Your task to perform on an android device: change the upload size in google photos Image 0: 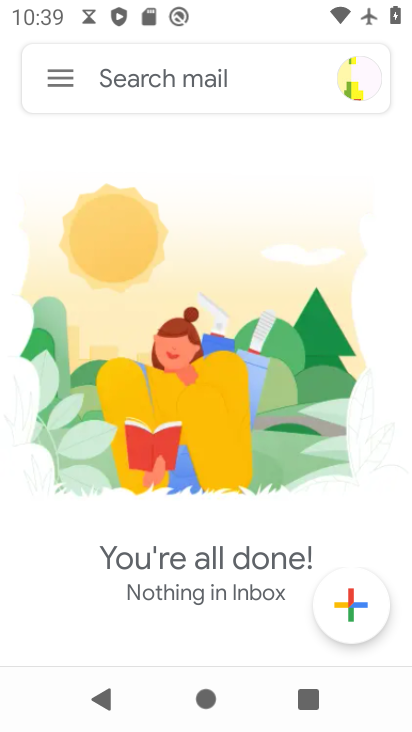
Step 0: press home button
Your task to perform on an android device: change the upload size in google photos Image 1: 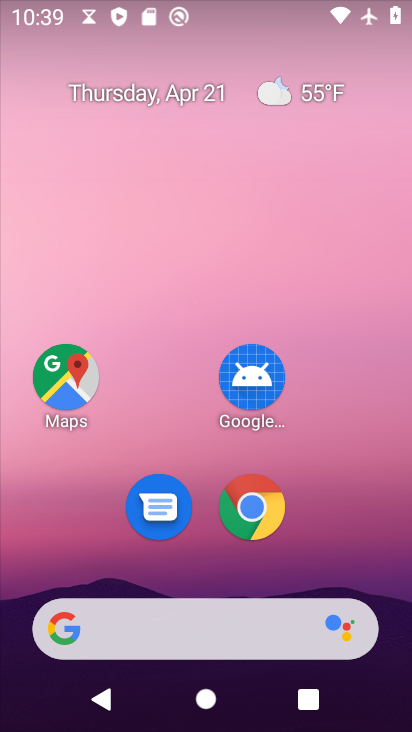
Step 1: drag from (287, 577) to (329, 138)
Your task to perform on an android device: change the upload size in google photos Image 2: 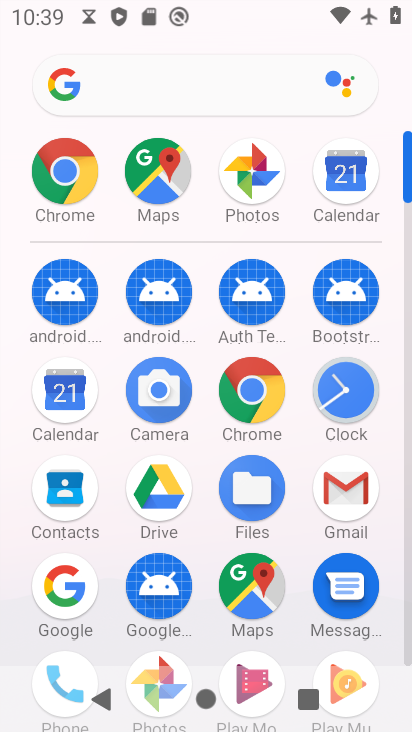
Step 2: drag from (202, 555) to (217, 277)
Your task to perform on an android device: change the upload size in google photos Image 3: 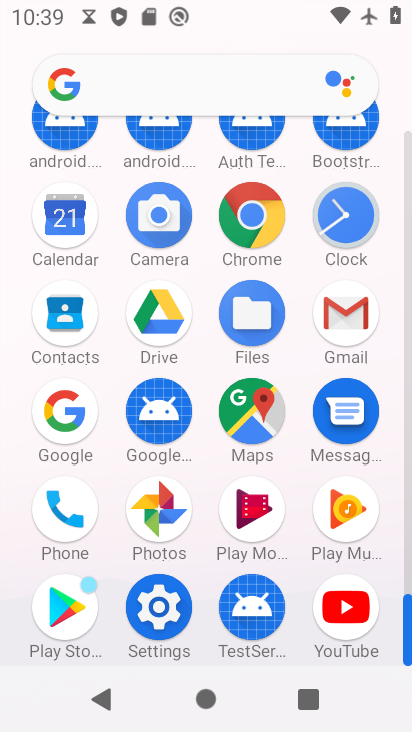
Step 3: click (170, 507)
Your task to perform on an android device: change the upload size in google photos Image 4: 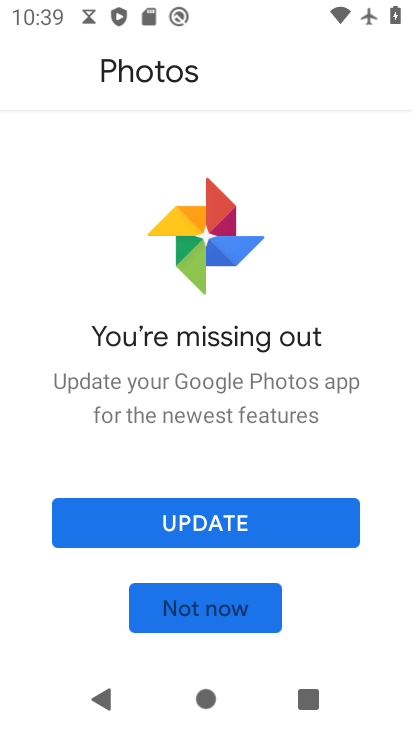
Step 4: click (190, 603)
Your task to perform on an android device: change the upload size in google photos Image 5: 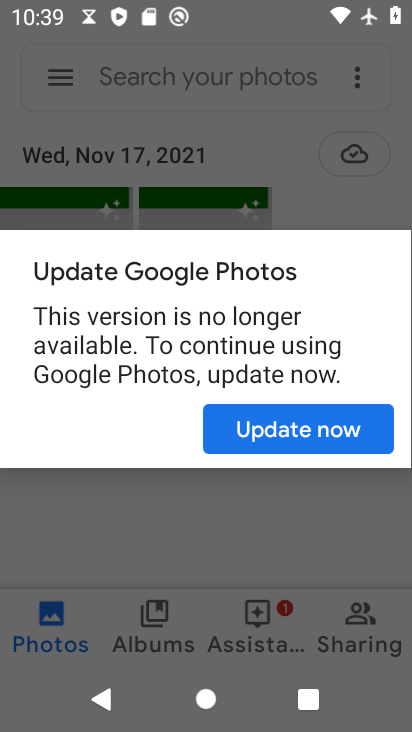
Step 5: click (303, 420)
Your task to perform on an android device: change the upload size in google photos Image 6: 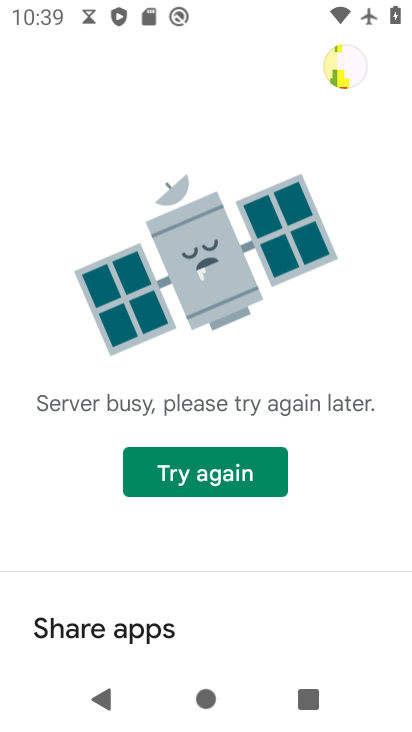
Step 6: press back button
Your task to perform on an android device: change the upload size in google photos Image 7: 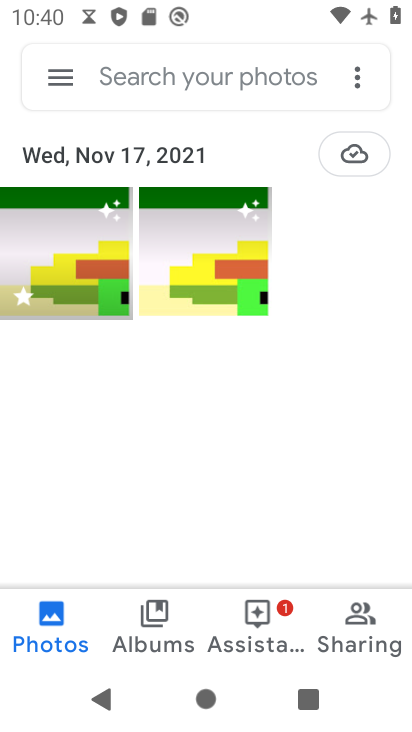
Step 7: click (52, 78)
Your task to perform on an android device: change the upload size in google photos Image 8: 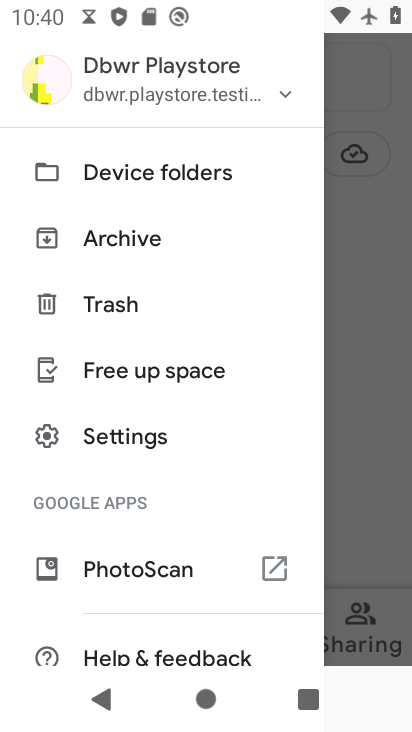
Step 8: click (143, 432)
Your task to perform on an android device: change the upload size in google photos Image 9: 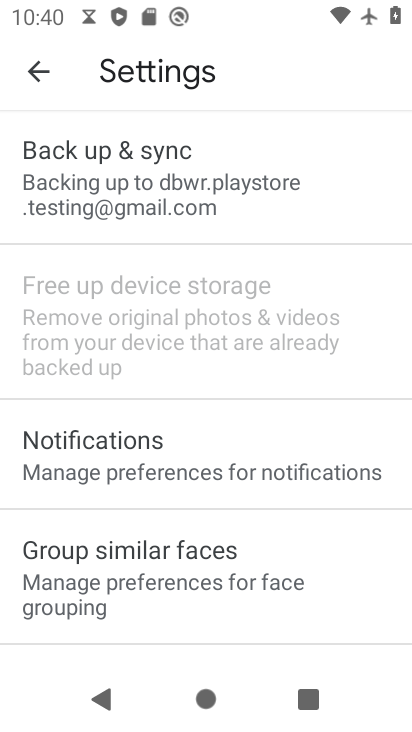
Step 9: click (204, 183)
Your task to perform on an android device: change the upload size in google photos Image 10: 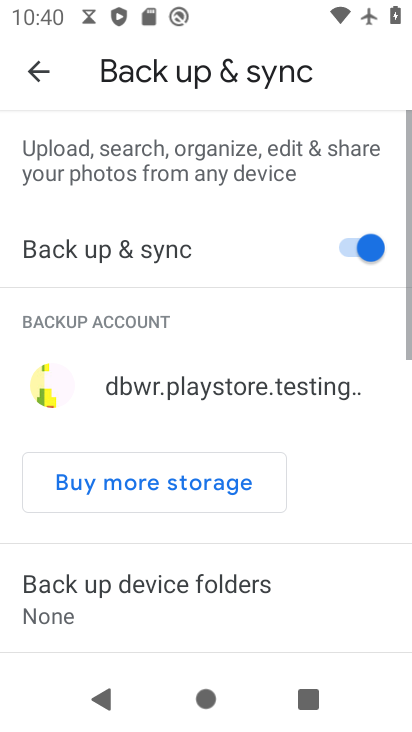
Step 10: drag from (262, 568) to (263, 180)
Your task to perform on an android device: change the upload size in google photos Image 11: 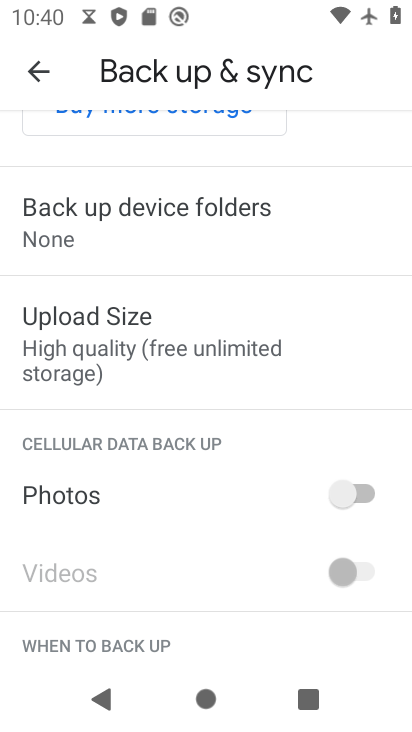
Step 11: press home button
Your task to perform on an android device: change the upload size in google photos Image 12: 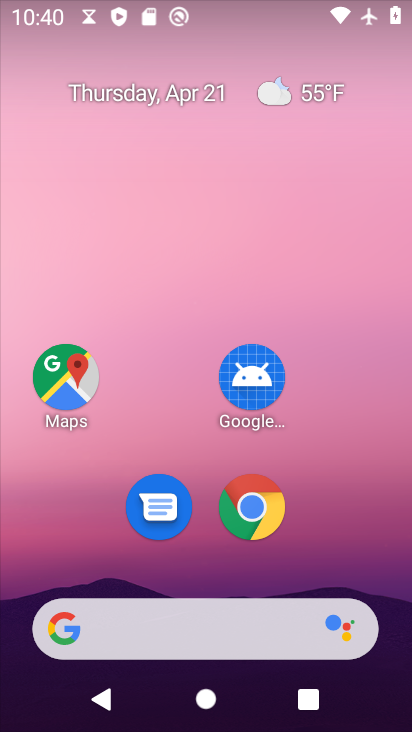
Step 12: drag from (318, 257) to (342, 74)
Your task to perform on an android device: change the upload size in google photos Image 13: 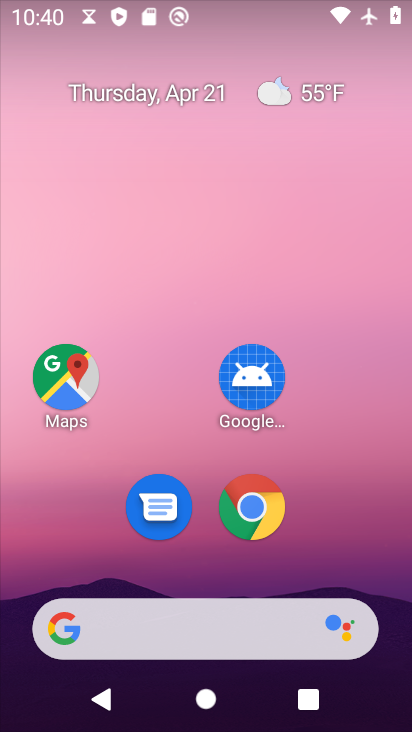
Step 13: drag from (299, 546) to (335, 150)
Your task to perform on an android device: change the upload size in google photos Image 14: 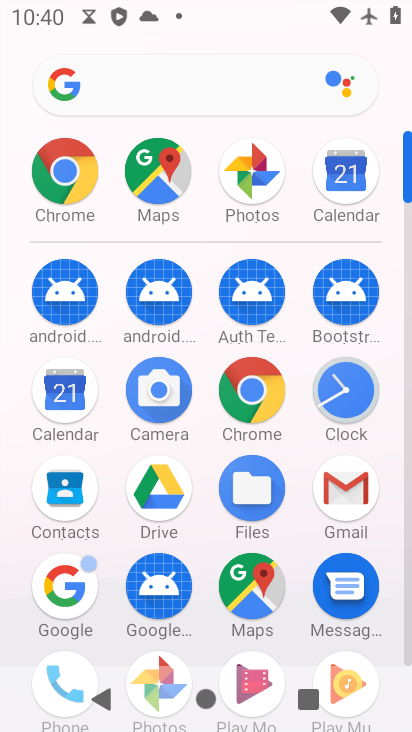
Step 14: drag from (195, 615) to (234, 358)
Your task to perform on an android device: change the upload size in google photos Image 15: 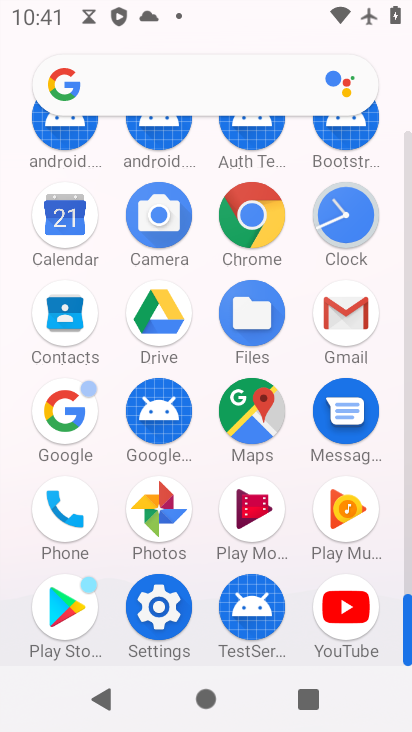
Step 15: click (161, 617)
Your task to perform on an android device: change the upload size in google photos Image 16: 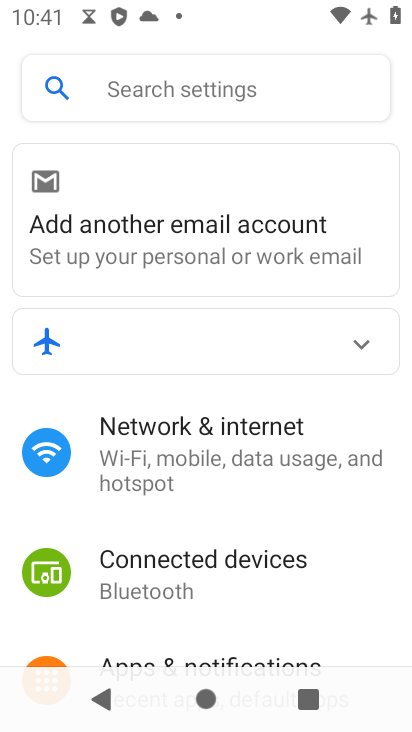
Step 16: press home button
Your task to perform on an android device: change the upload size in google photos Image 17: 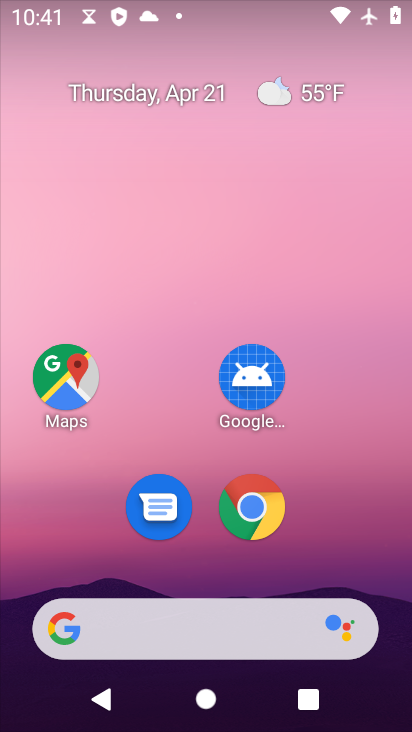
Step 17: drag from (324, 406) to (332, 107)
Your task to perform on an android device: change the upload size in google photos Image 18: 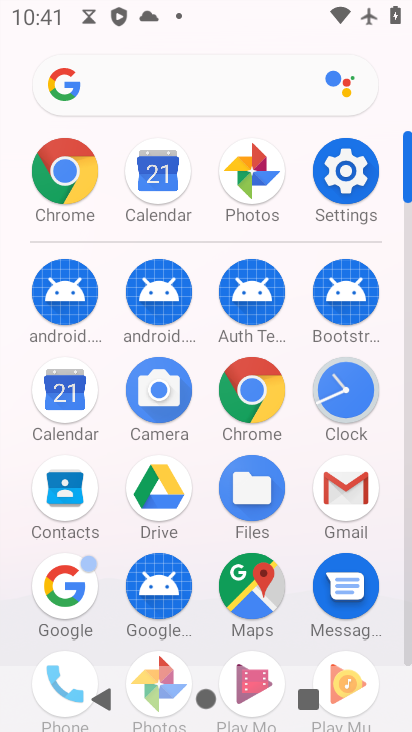
Step 18: drag from (192, 629) to (194, 450)
Your task to perform on an android device: change the upload size in google photos Image 19: 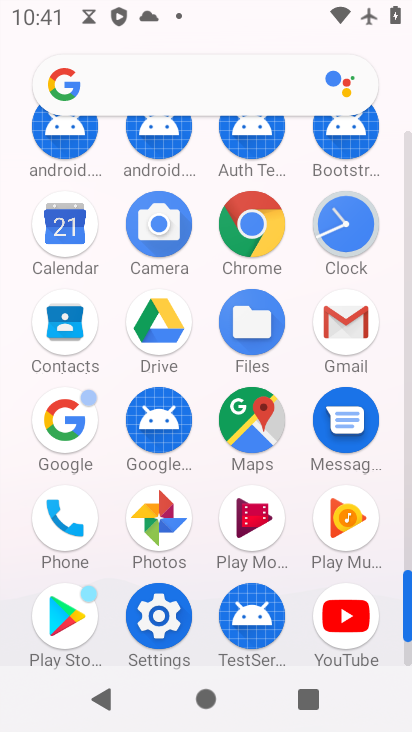
Step 19: click (163, 528)
Your task to perform on an android device: change the upload size in google photos Image 20: 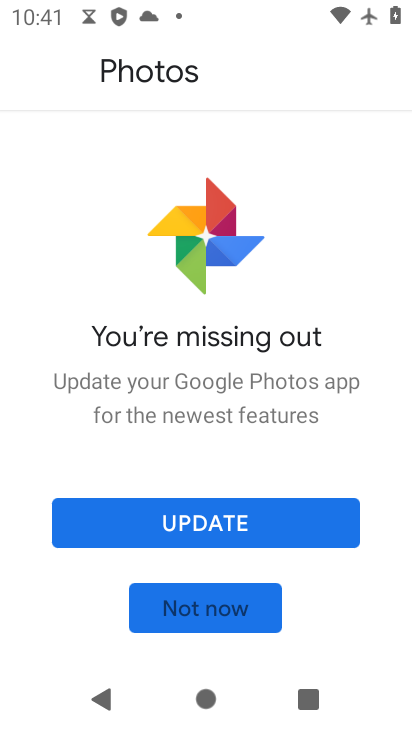
Step 20: click (201, 603)
Your task to perform on an android device: change the upload size in google photos Image 21: 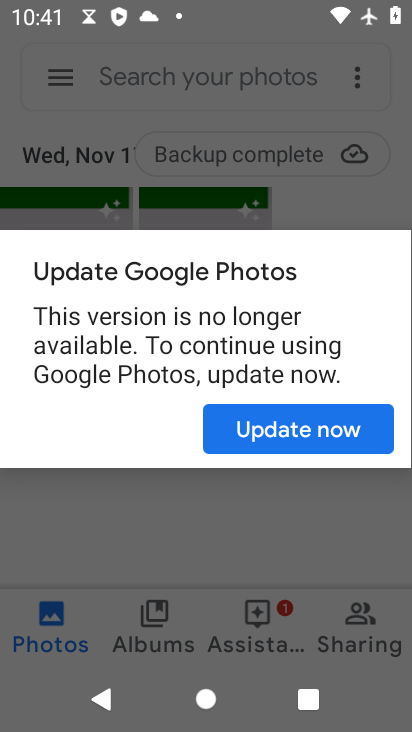
Step 21: click (282, 428)
Your task to perform on an android device: change the upload size in google photos Image 22: 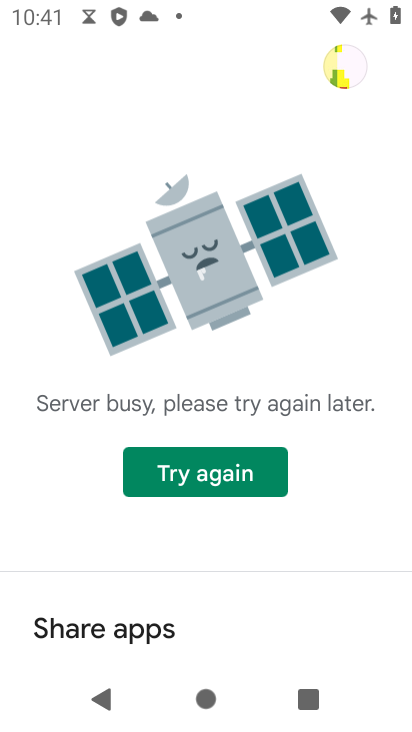
Step 22: press back button
Your task to perform on an android device: change the upload size in google photos Image 23: 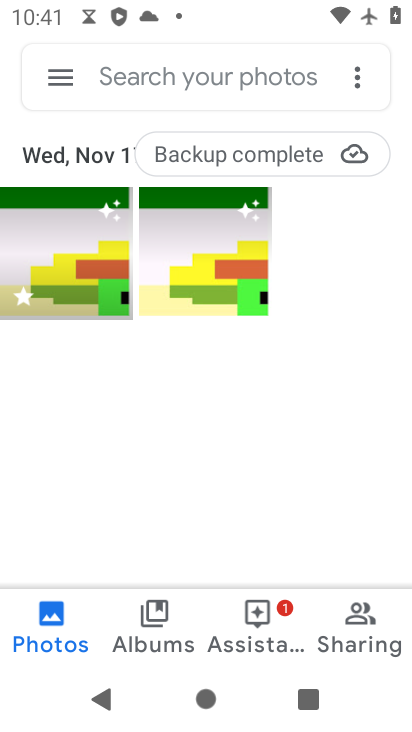
Step 23: click (58, 74)
Your task to perform on an android device: change the upload size in google photos Image 24: 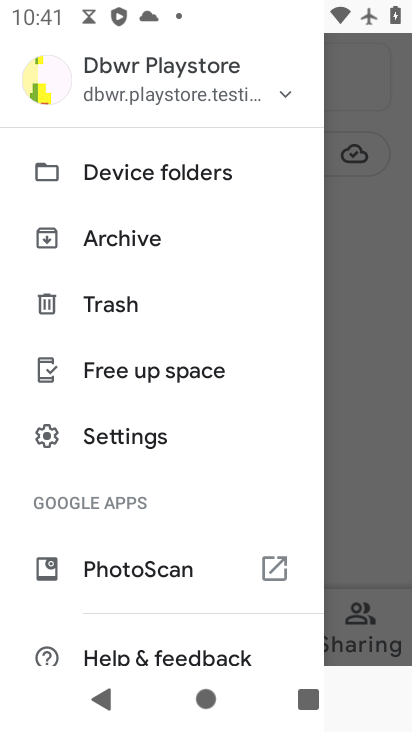
Step 24: click (158, 432)
Your task to perform on an android device: change the upload size in google photos Image 25: 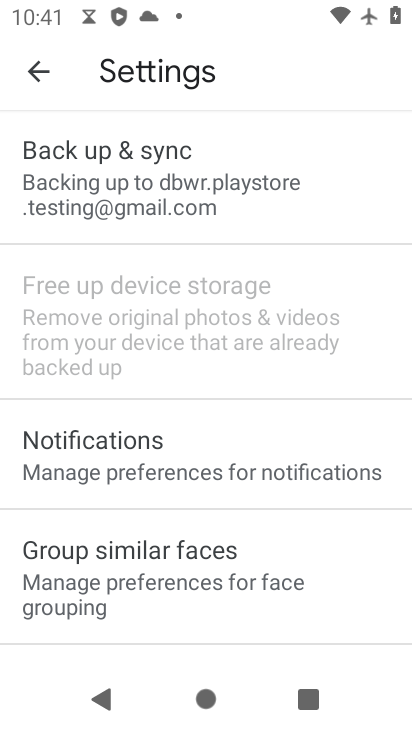
Step 25: click (194, 172)
Your task to perform on an android device: change the upload size in google photos Image 26: 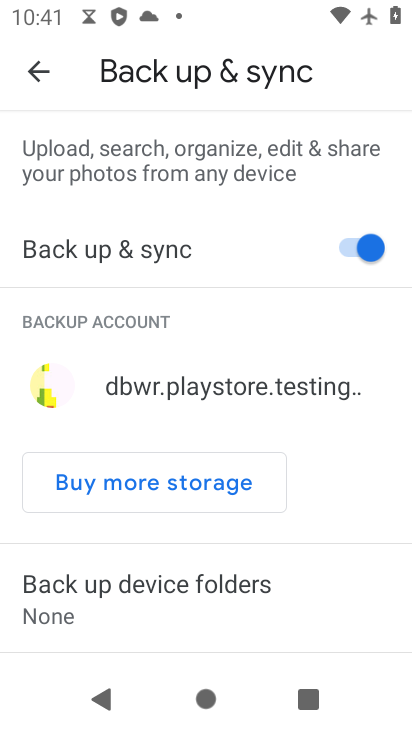
Step 26: drag from (220, 579) to (268, 229)
Your task to perform on an android device: change the upload size in google photos Image 27: 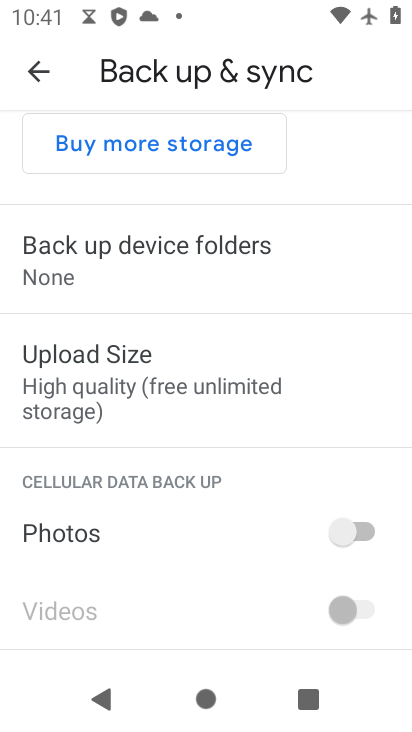
Step 27: click (201, 391)
Your task to perform on an android device: change the upload size in google photos Image 28: 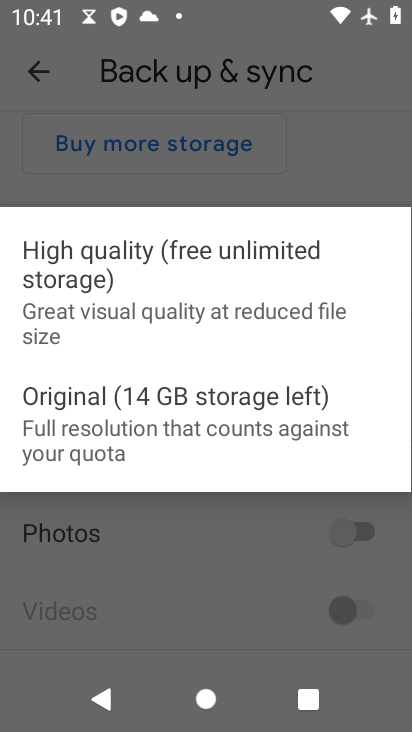
Step 28: click (195, 409)
Your task to perform on an android device: change the upload size in google photos Image 29: 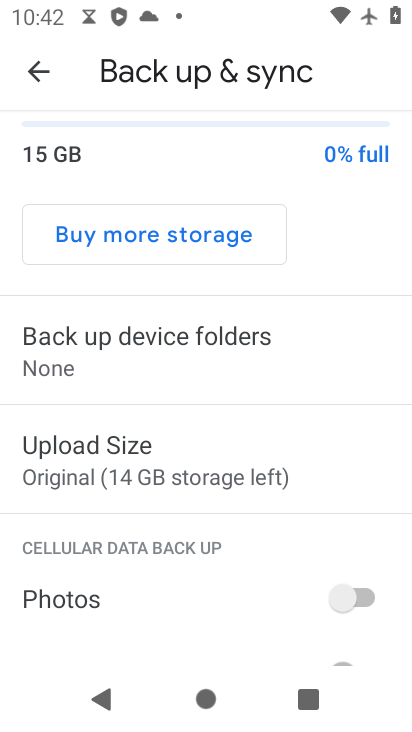
Step 29: task complete